Your task to perform on an android device: turn on location history Image 0: 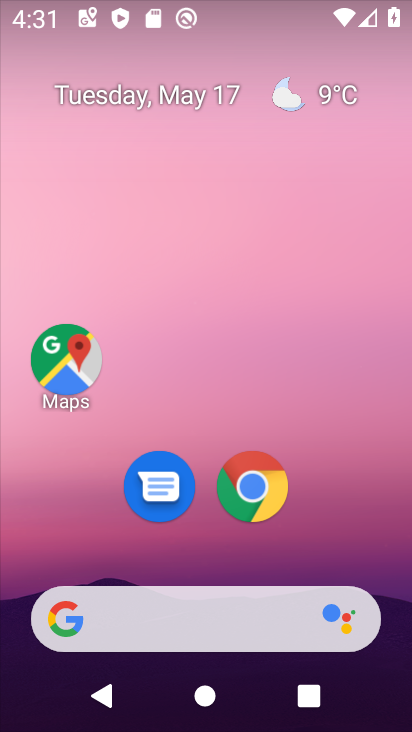
Step 0: drag from (351, 560) to (239, 88)
Your task to perform on an android device: turn on location history Image 1: 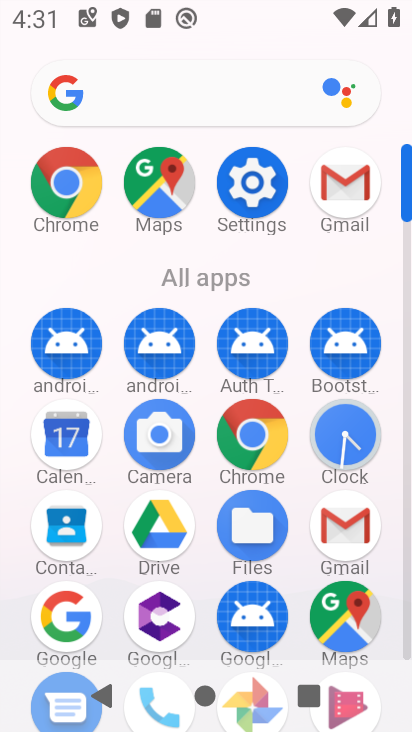
Step 1: click (149, 201)
Your task to perform on an android device: turn on location history Image 2: 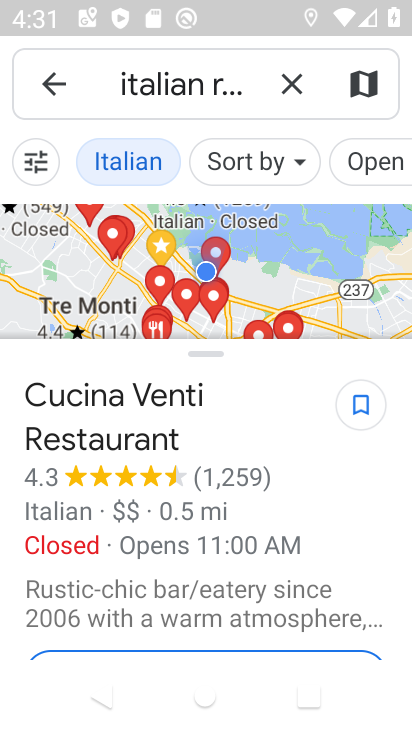
Step 2: click (63, 82)
Your task to perform on an android device: turn on location history Image 3: 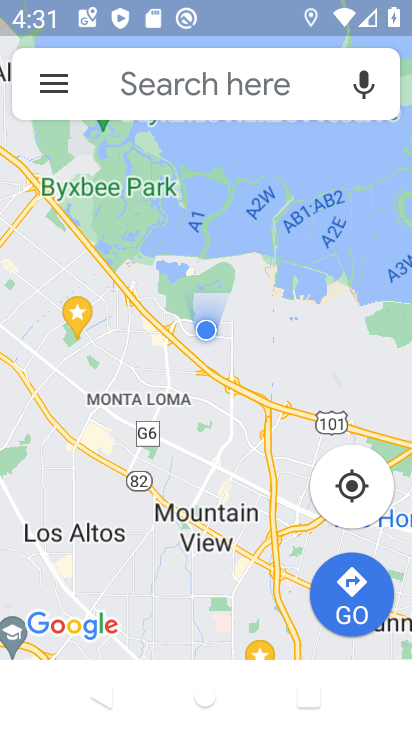
Step 3: click (63, 82)
Your task to perform on an android device: turn on location history Image 4: 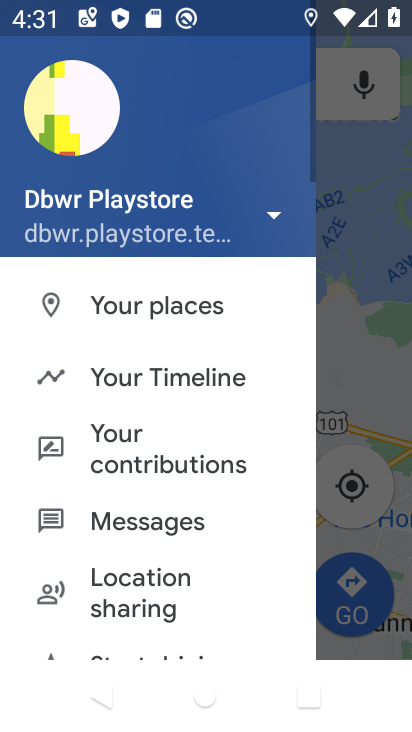
Step 4: click (165, 369)
Your task to perform on an android device: turn on location history Image 5: 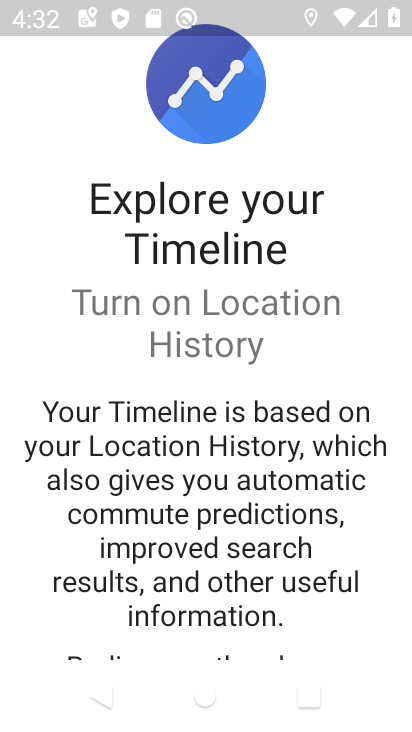
Step 5: drag from (215, 595) to (185, 245)
Your task to perform on an android device: turn on location history Image 6: 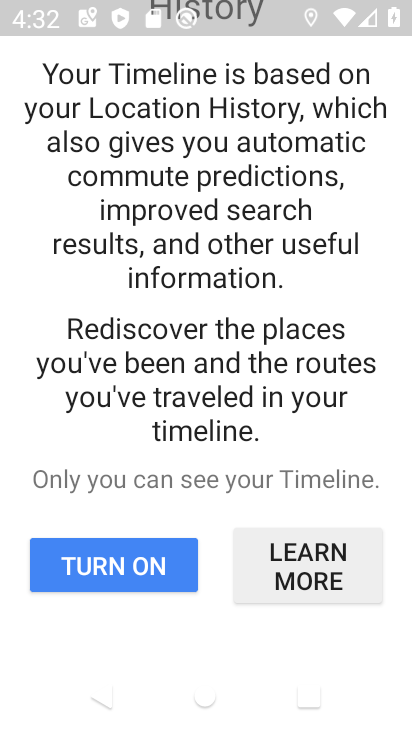
Step 6: click (170, 580)
Your task to perform on an android device: turn on location history Image 7: 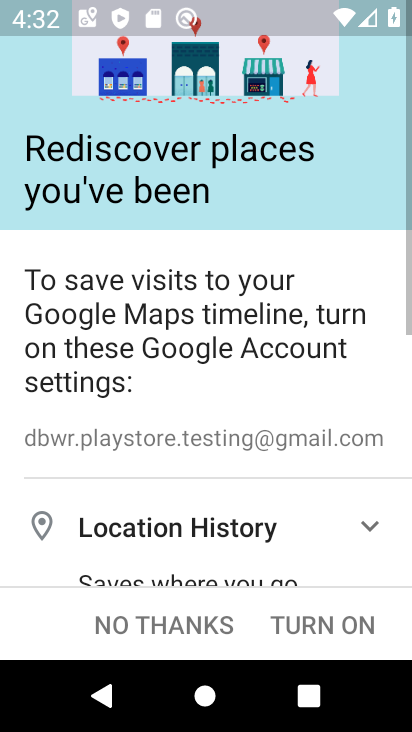
Step 7: click (284, 619)
Your task to perform on an android device: turn on location history Image 8: 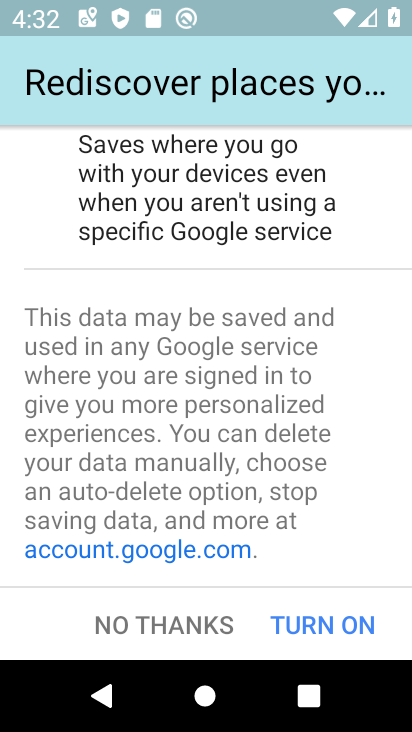
Step 8: drag from (272, 541) to (210, 100)
Your task to perform on an android device: turn on location history Image 9: 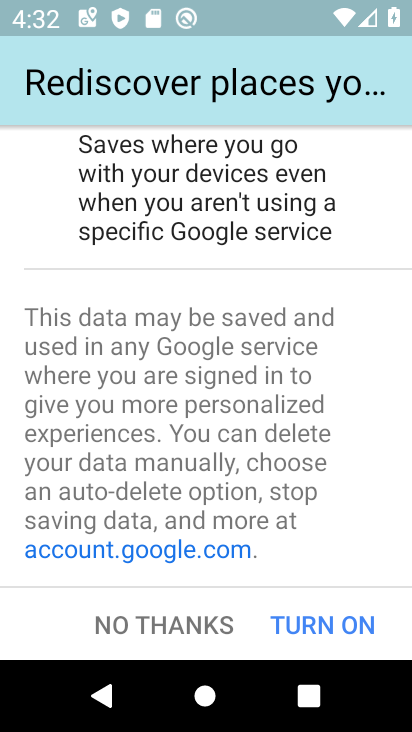
Step 9: click (301, 618)
Your task to perform on an android device: turn on location history Image 10: 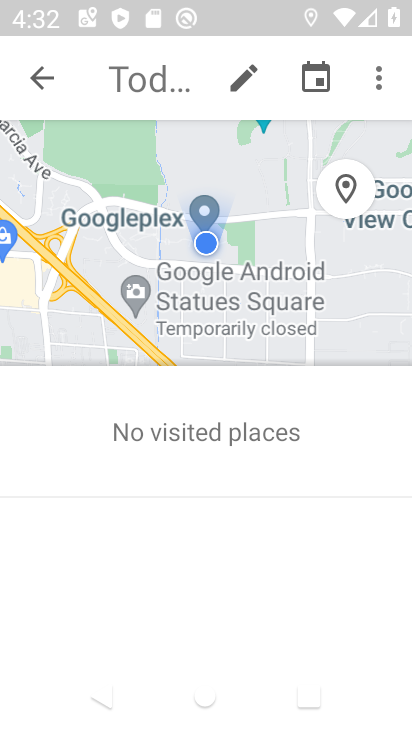
Step 10: task complete